Your task to perform on an android device: add a contact Image 0: 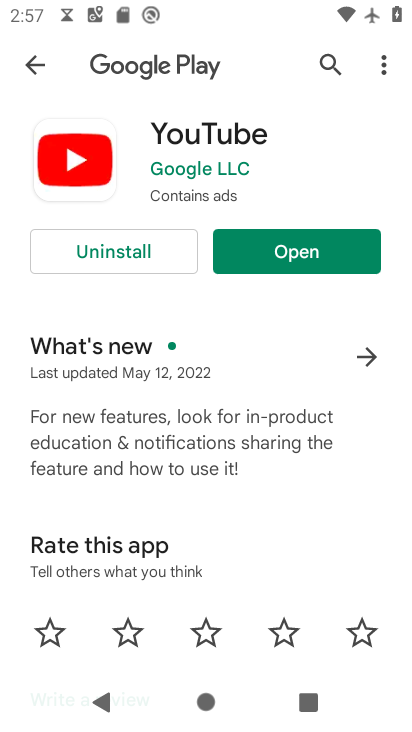
Step 0: press home button
Your task to perform on an android device: add a contact Image 1: 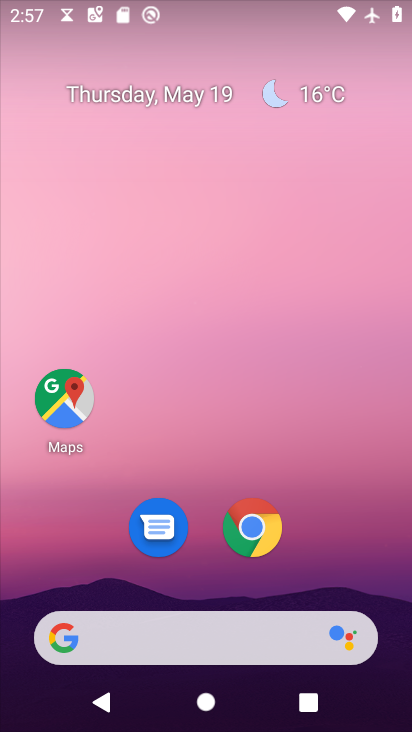
Step 1: drag from (343, 534) to (260, 49)
Your task to perform on an android device: add a contact Image 2: 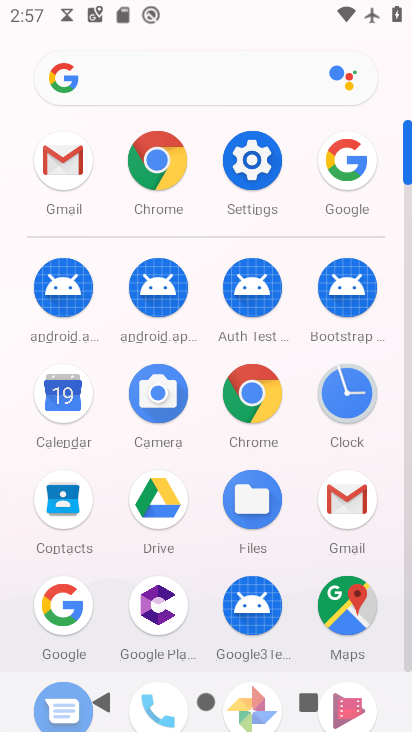
Step 2: click (64, 515)
Your task to perform on an android device: add a contact Image 3: 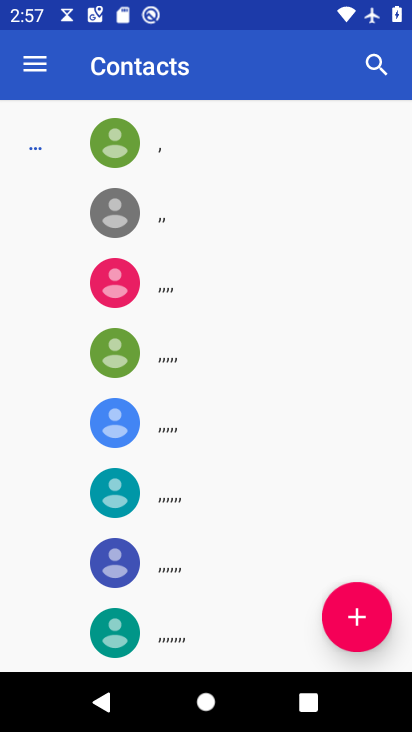
Step 3: click (367, 623)
Your task to perform on an android device: add a contact Image 4: 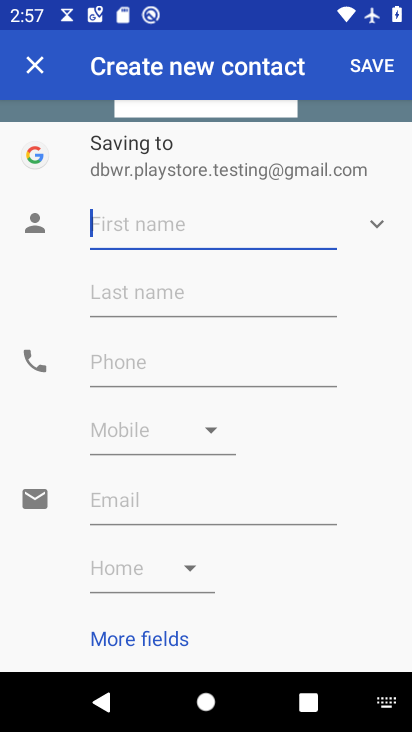
Step 4: type "rhd"
Your task to perform on an android device: add a contact Image 5: 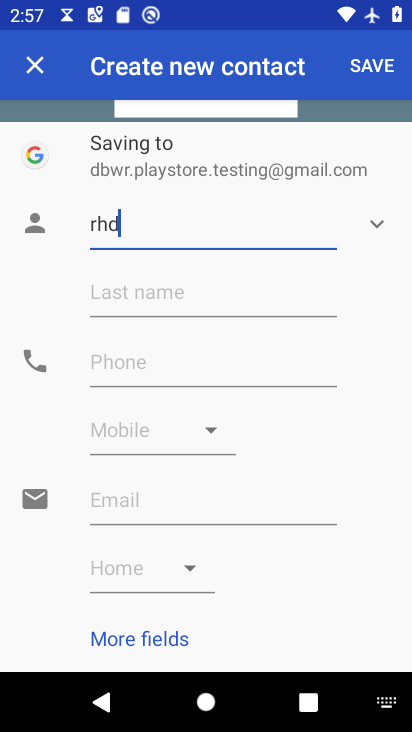
Step 5: click (273, 299)
Your task to perform on an android device: add a contact Image 6: 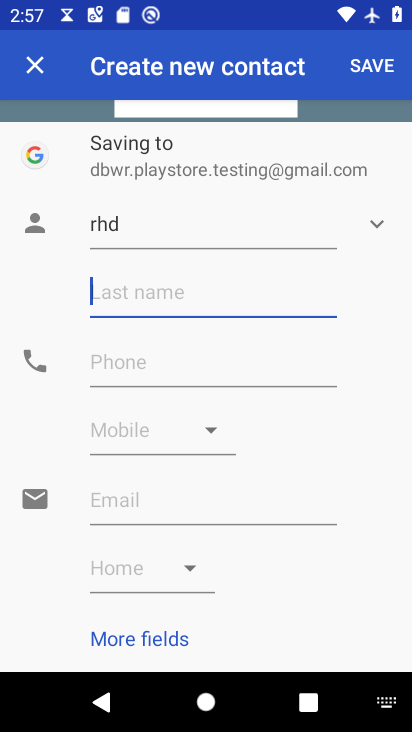
Step 6: type "hdgh"
Your task to perform on an android device: add a contact Image 7: 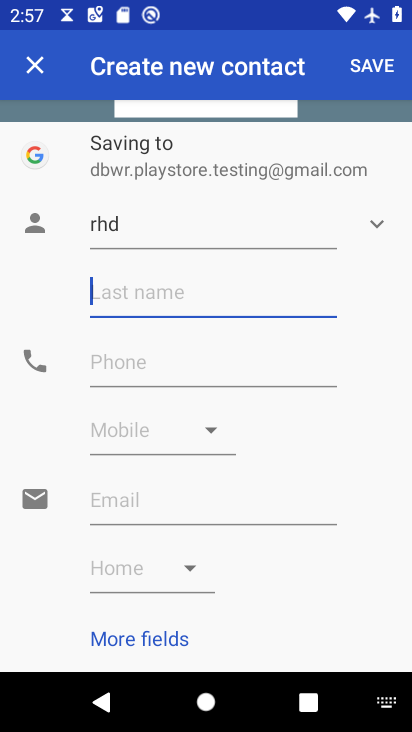
Step 7: click (250, 363)
Your task to perform on an android device: add a contact Image 8: 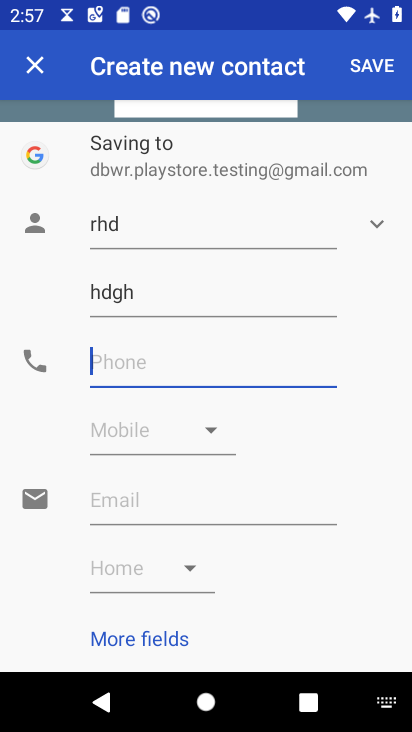
Step 8: type "56746746"
Your task to perform on an android device: add a contact Image 9: 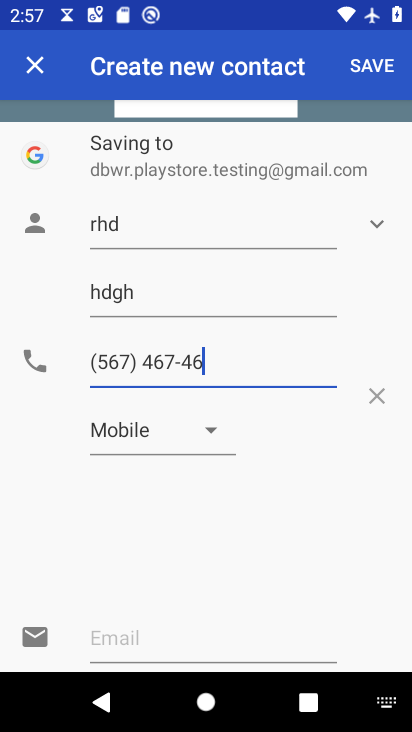
Step 9: type ""
Your task to perform on an android device: add a contact Image 10: 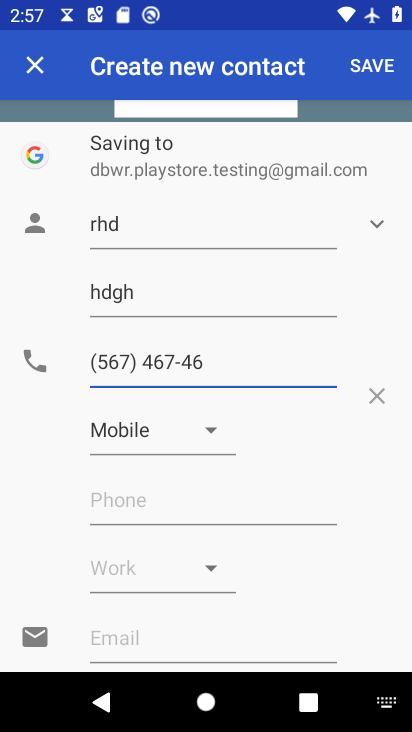
Step 10: click (355, 65)
Your task to perform on an android device: add a contact Image 11: 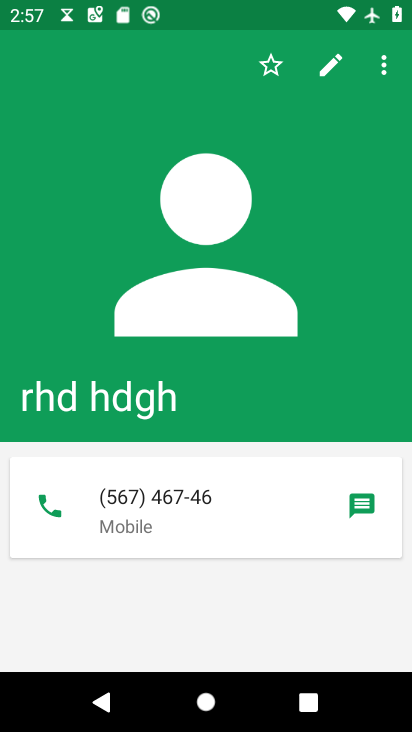
Step 11: task complete